Your task to perform on an android device: Go to Reddit.com Image 0: 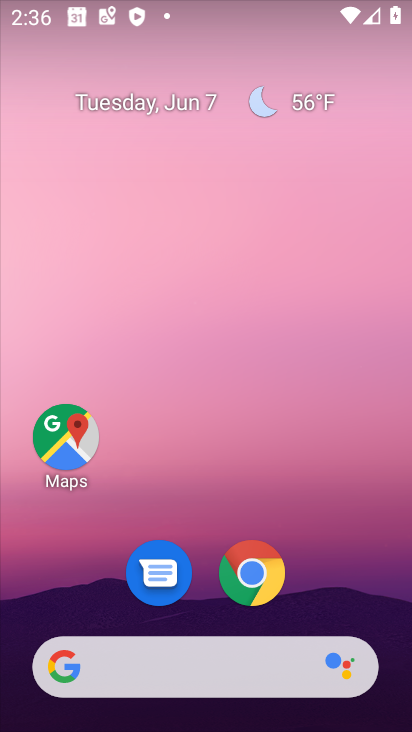
Step 0: click (265, 560)
Your task to perform on an android device: Go to Reddit.com Image 1: 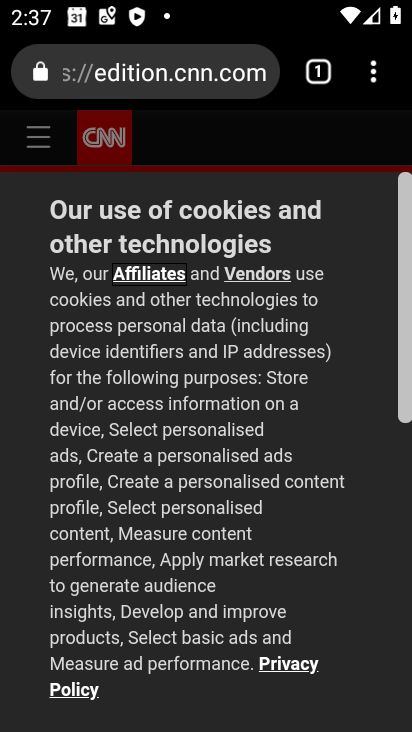
Step 1: click (131, 80)
Your task to perform on an android device: Go to Reddit.com Image 2: 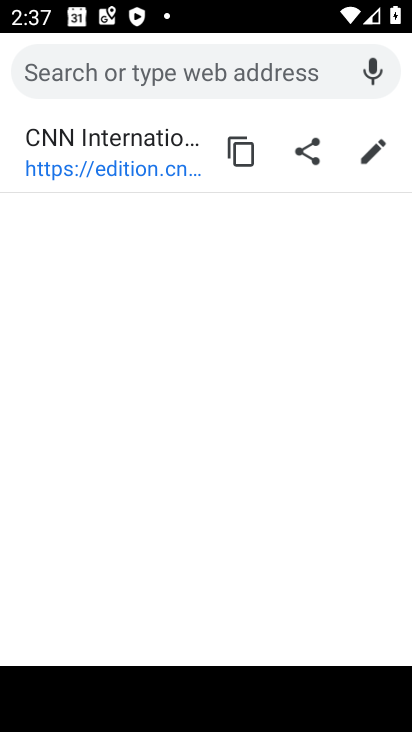
Step 2: type "Reddit.com"
Your task to perform on an android device: Go to Reddit.com Image 3: 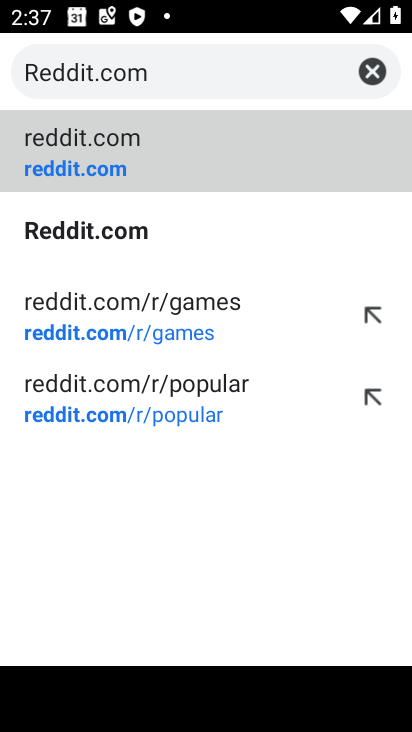
Step 3: click (91, 142)
Your task to perform on an android device: Go to Reddit.com Image 4: 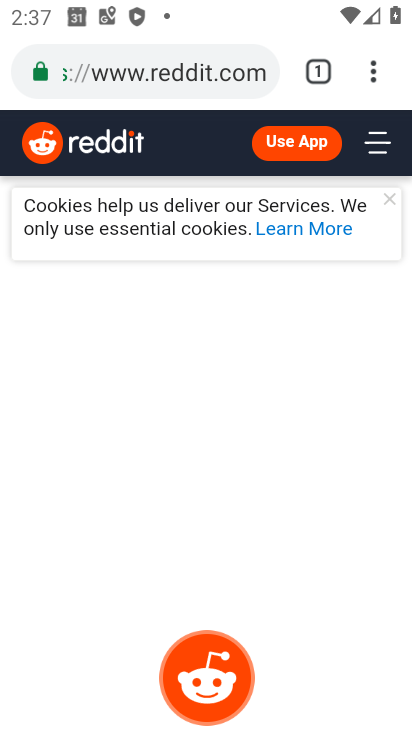
Step 4: task complete